Your task to perform on an android device: Set the phone to "Do not disturb". Image 0: 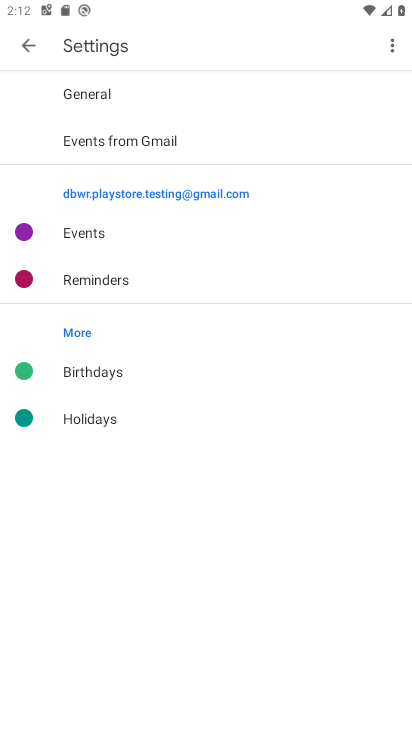
Step 0: press home button
Your task to perform on an android device: Set the phone to "Do not disturb". Image 1: 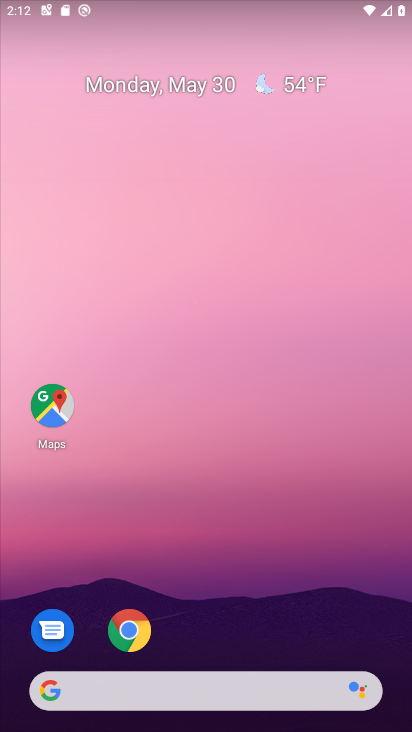
Step 1: drag from (172, 680) to (314, 158)
Your task to perform on an android device: Set the phone to "Do not disturb". Image 2: 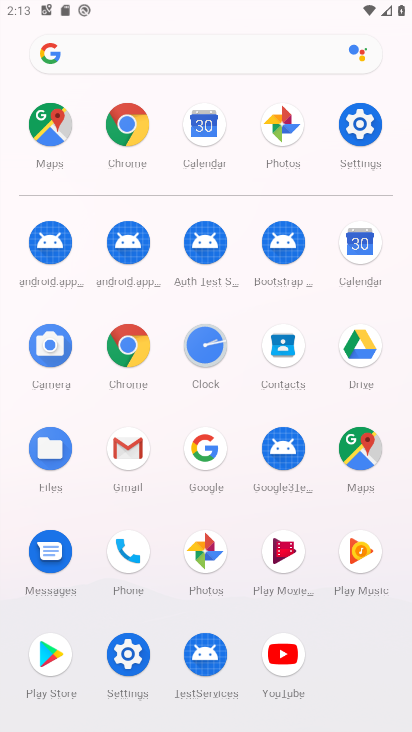
Step 2: click (131, 656)
Your task to perform on an android device: Set the phone to "Do not disturb". Image 3: 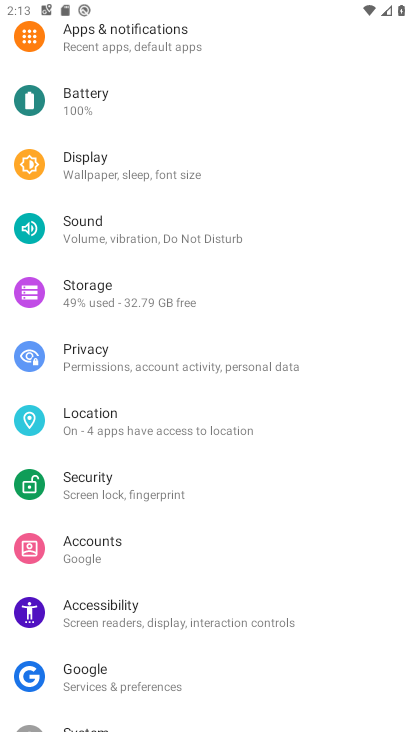
Step 3: click (166, 231)
Your task to perform on an android device: Set the phone to "Do not disturb". Image 4: 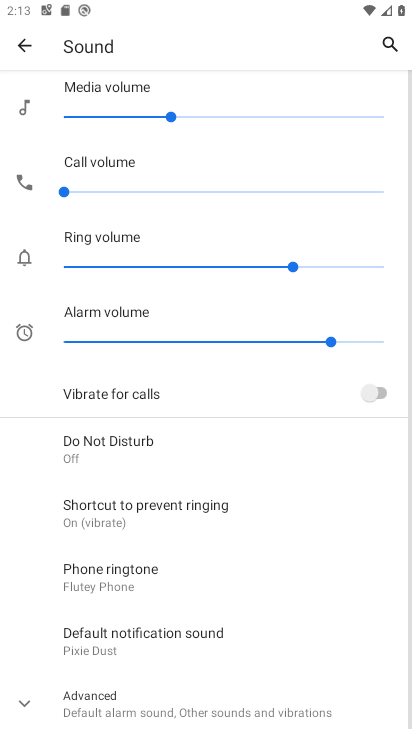
Step 4: drag from (210, 607) to (298, 289)
Your task to perform on an android device: Set the phone to "Do not disturb". Image 5: 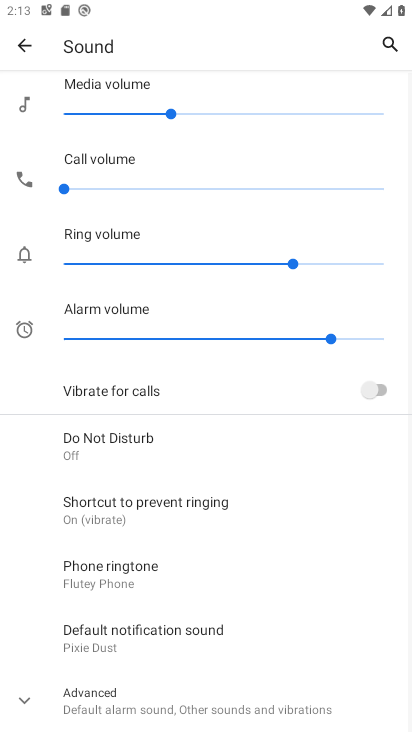
Step 5: click (127, 450)
Your task to perform on an android device: Set the phone to "Do not disturb". Image 6: 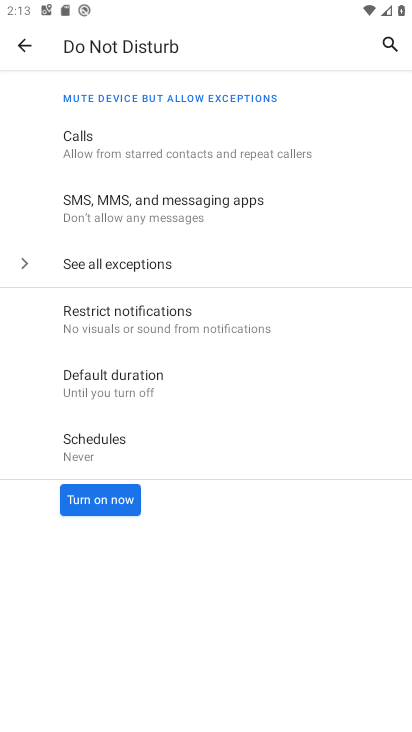
Step 6: click (95, 502)
Your task to perform on an android device: Set the phone to "Do not disturb". Image 7: 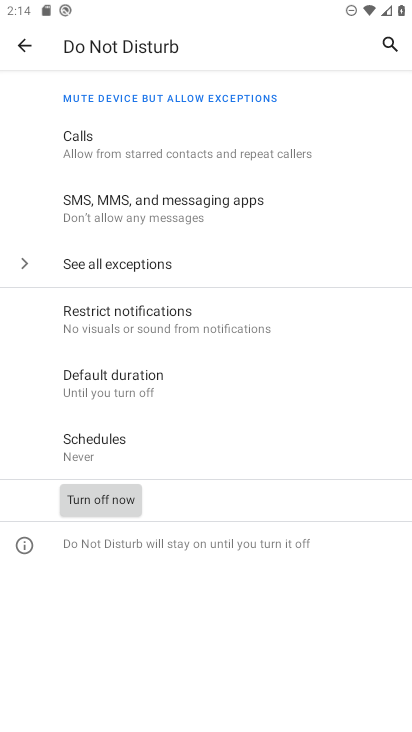
Step 7: task complete